Your task to perform on an android device: Go to privacy settings Image 0: 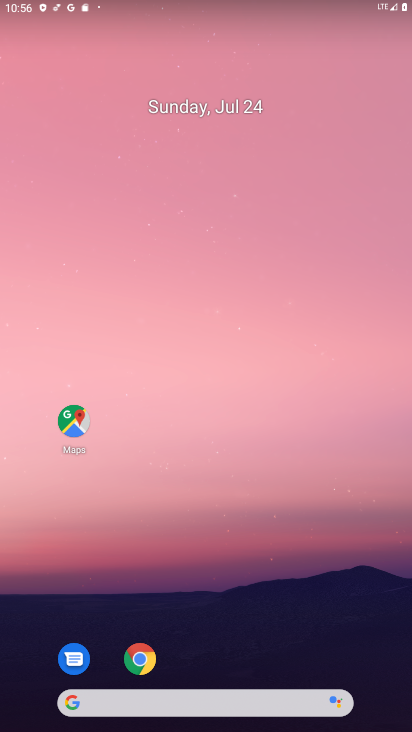
Step 0: drag from (190, 385) to (188, 210)
Your task to perform on an android device: Go to privacy settings Image 1: 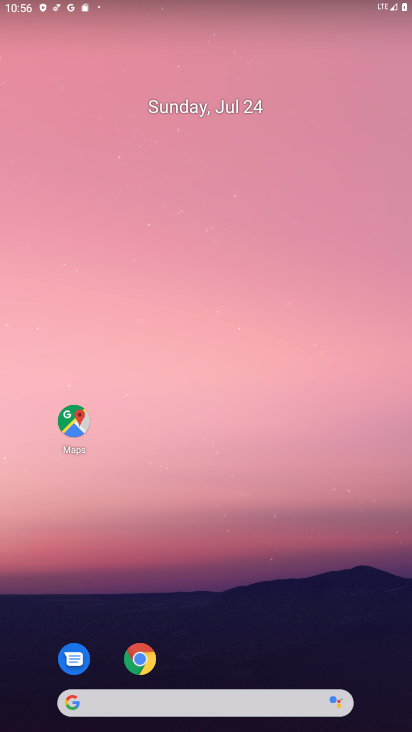
Step 1: drag from (228, 660) to (225, 169)
Your task to perform on an android device: Go to privacy settings Image 2: 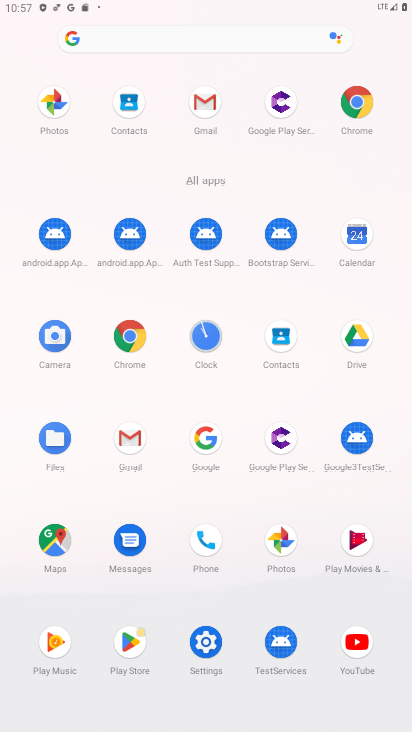
Step 2: click (212, 651)
Your task to perform on an android device: Go to privacy settings Image 3: 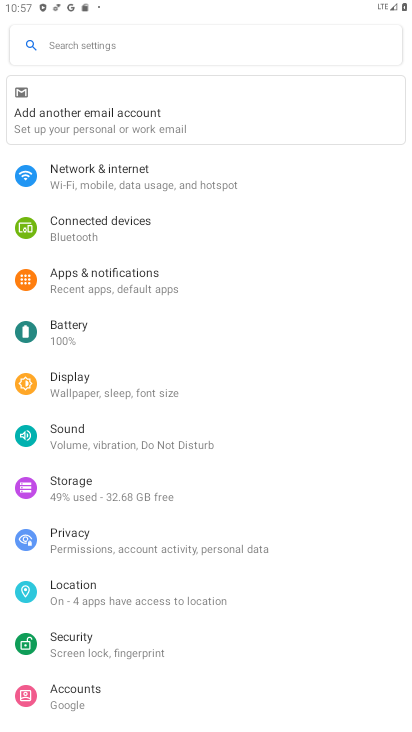
Step 3: click (133, 546)
Your task to perform on an android device: Go to privacy settings Image 4: 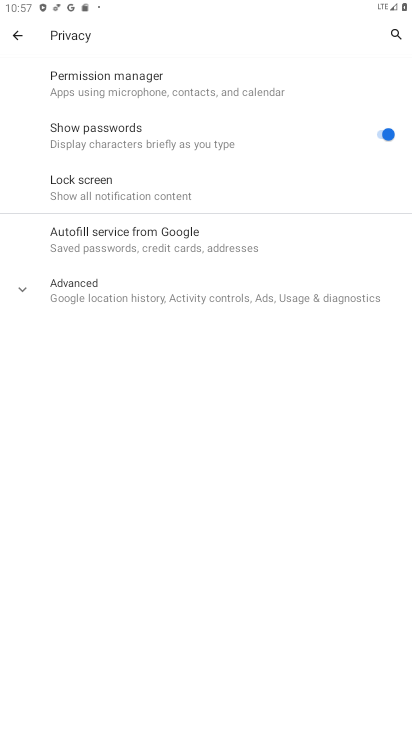
Step 4: task complete